Your task to perform on an android device: remove spam from my inbox in the gmail app Image 0: 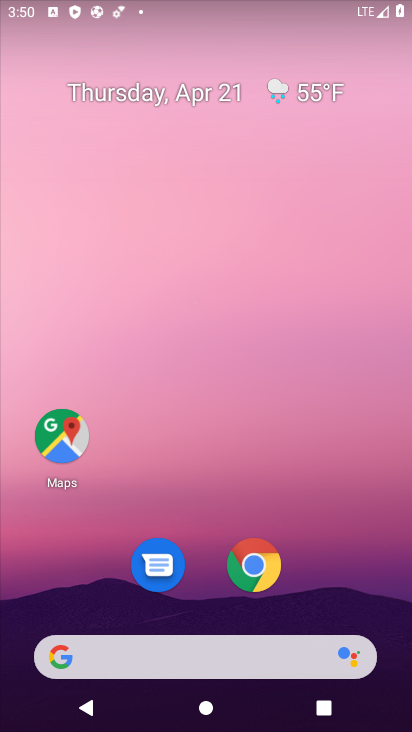
Step 0: drag from (324, 586) to (321, 81)
Your task to perform on an android device: remove spam from my inbox in the gmail app Image 1: 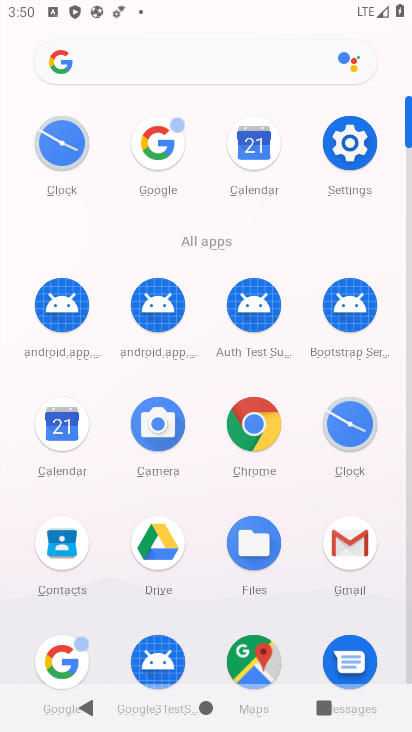
Step 1: click (348, 548)
Your task to perform on an android device: remove spam from my inbox in the gmail app Image 2: 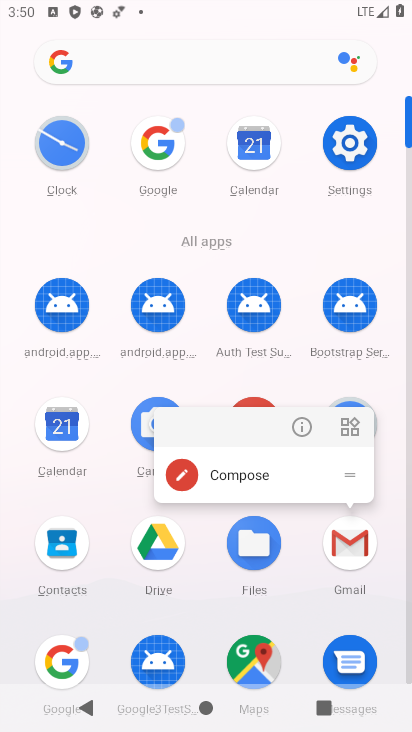
Step 2: click (340, 543)
Your task to perform on an android device: remove spam from my inbox in the gmail app Image 3: 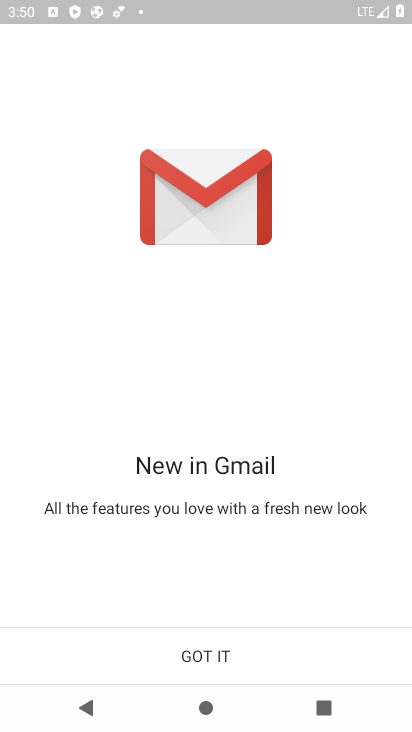
Step 3: click (280, 649)
Your task to perform on an android device: remove spam from my inbox in the gmail app Image 4: 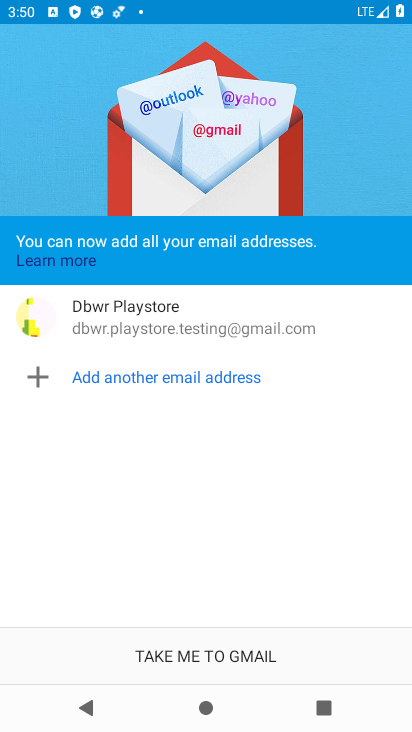
Step 4: click (280, 649)
Your task to perform on an android device: remove spam from my inbox in the gmail app Image 5: 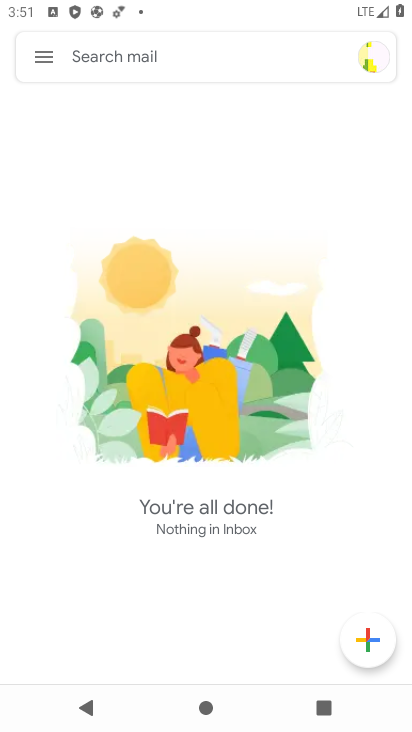
Step 5: click (48, 57)
Your task to perform on an android device: remove spam from my inbox in the gmail app Image 6: 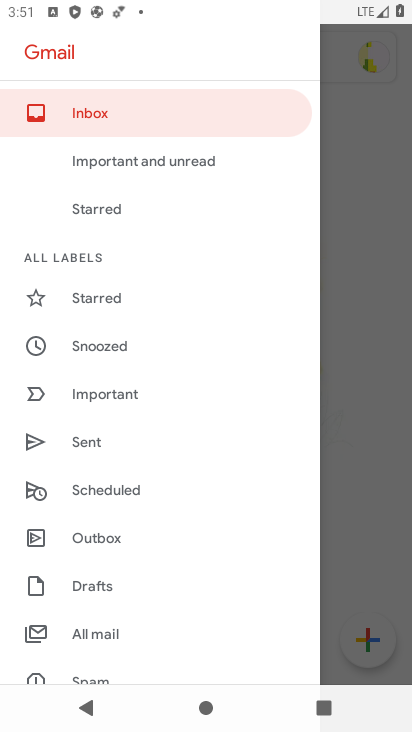
Step 6: drag from (191, 604) to (235, 236)
Your task to perform on an android device: remove spam from my inbox in the gmail app Image 7: 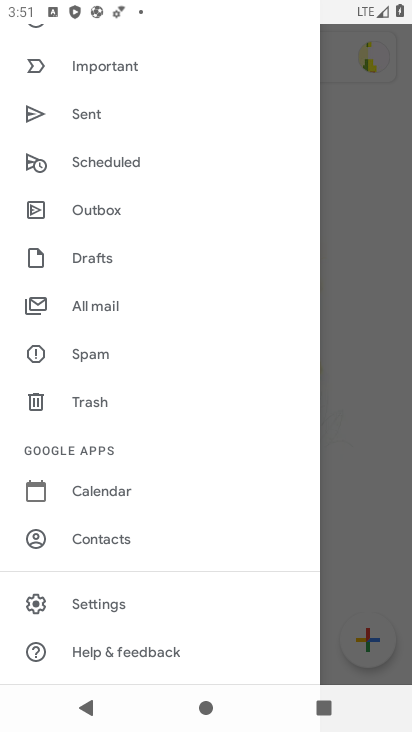
Step 7: click (157, 354)
Your task to perform on an android device: remove spam from my inbox in the gmail app Image 8: 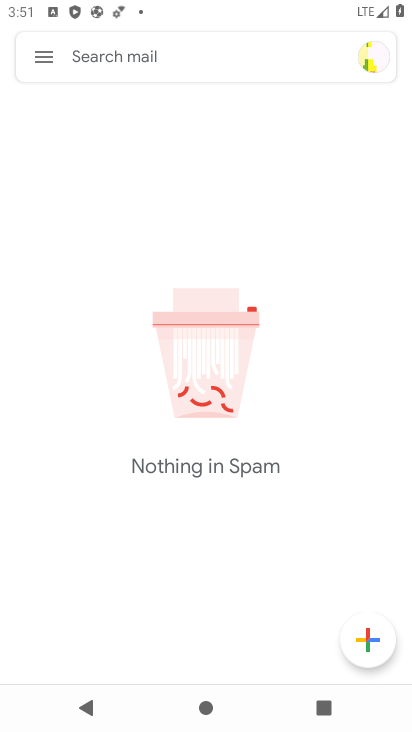
Step 8: task complete